Your task to perform on an android device: install app "Walmart Shopping & Grocery" Image 0: 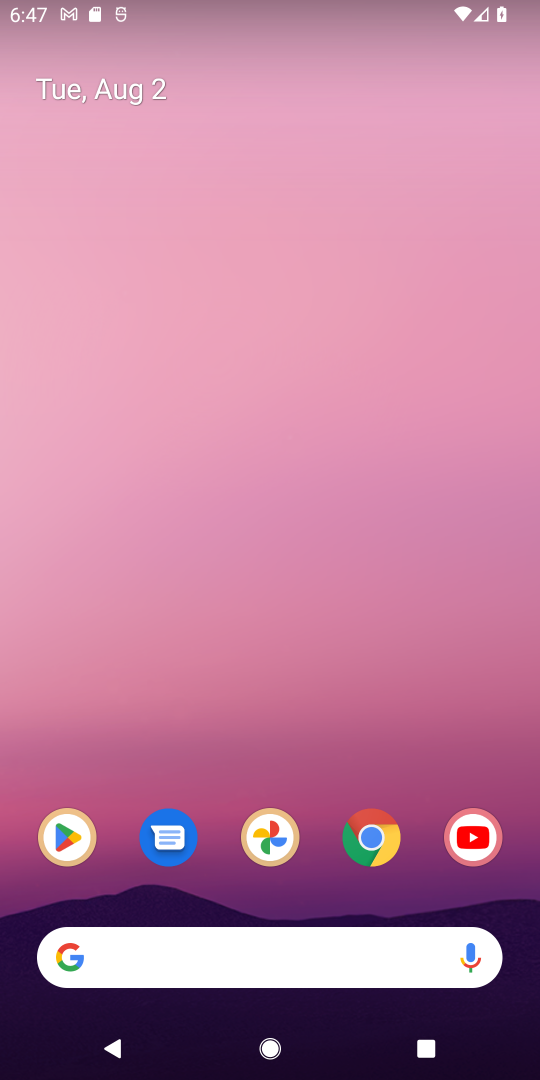
Step 0: drag from (207, 859) to (269, 365)
Your task to perform on an android device: install app "Walmart Shopping & Grocery" Image 1: 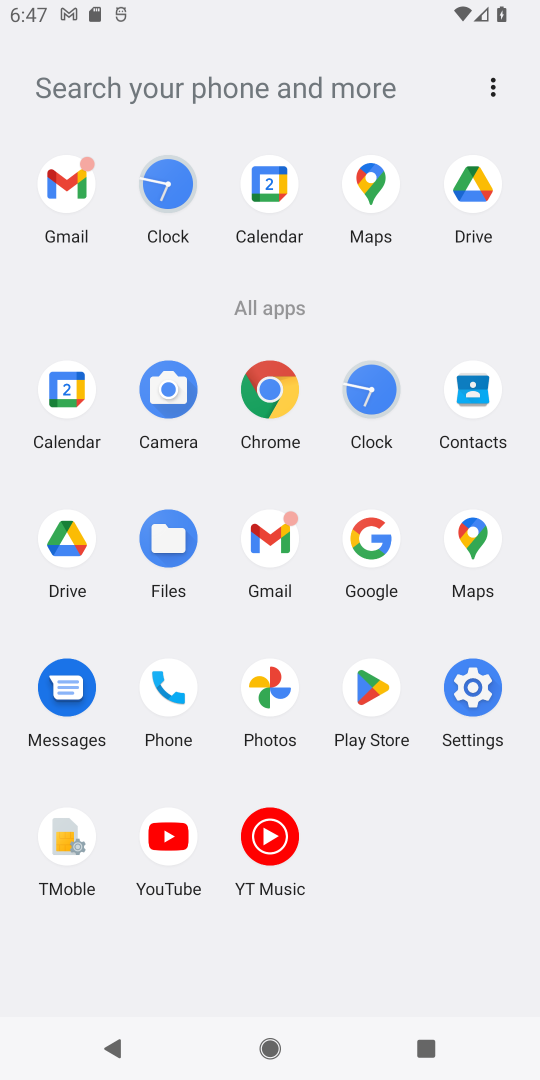
Step 1: click (374, 683)
Your task to perform on an android device: install app "Walmart Shopping & Grocery" Image 2: 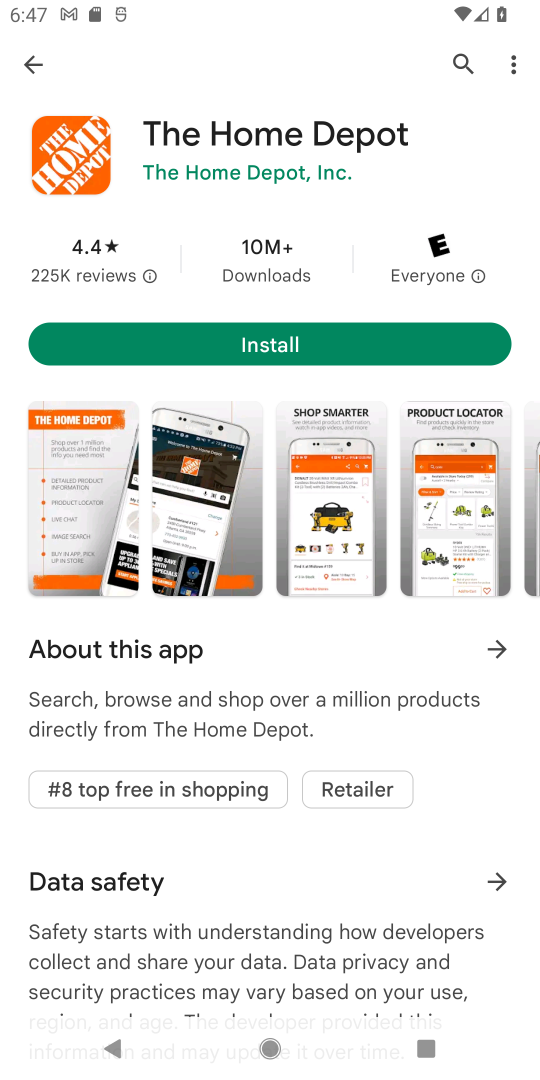
Step 2: drag from (281, 649) to (356, 1072)
Your task to perform on an android device: install app "Walmart Shopping & Grocery" Image 3: 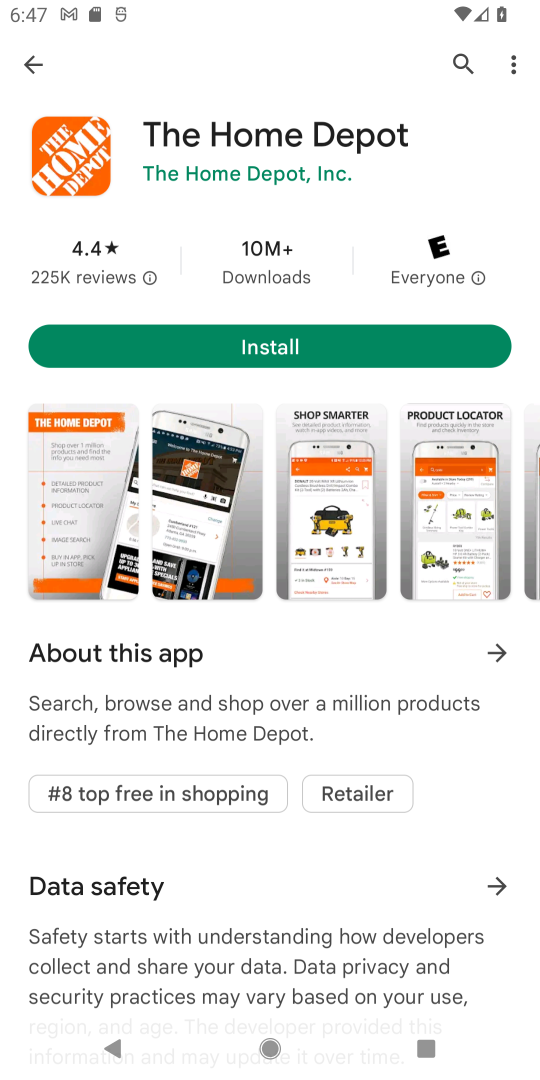
Step 3: drag from (287, 903) to (391, 314)
Your task to perform on an android device: install app "Walmart Shopping & Grocery" Image 4: 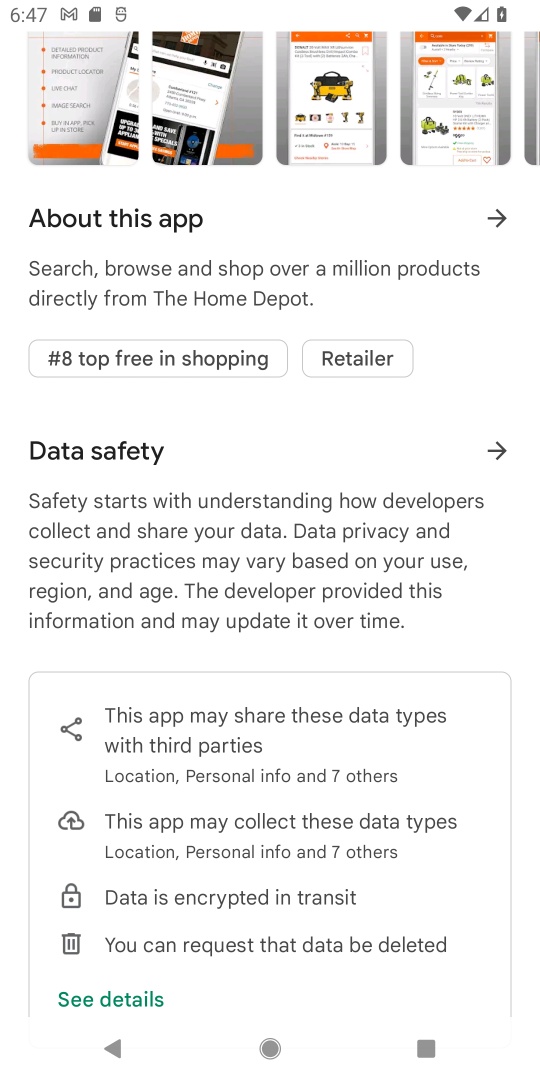
Step 4: drag from (310, 719) to (358, 324)
Your task to perform on an android device: install app "Walmart Shopping & Grocery" Image 5: 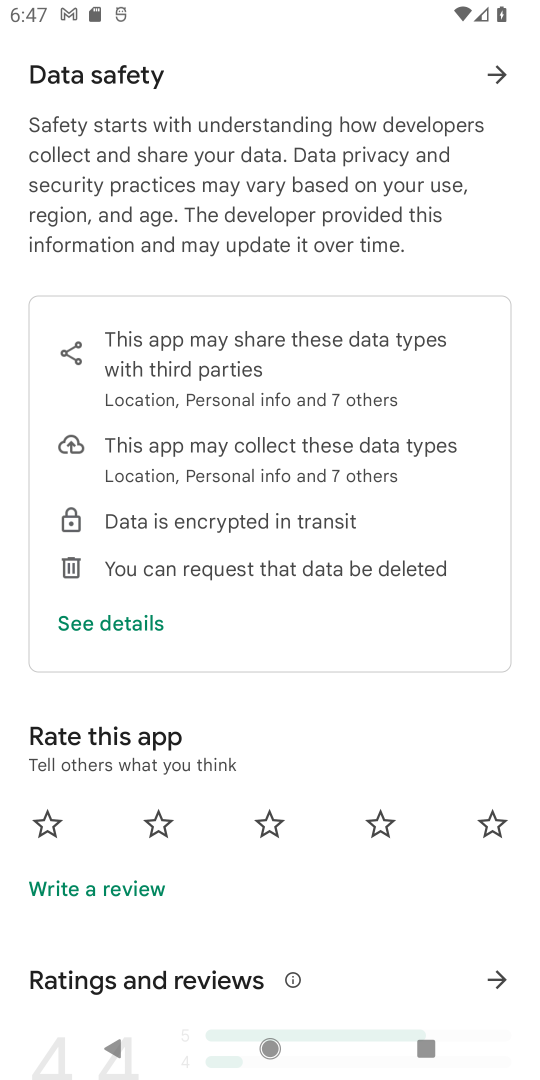
Step 5: drag from (178, 264) to (154, 800)
Your task to perform on an android device: install app "Walmart Shopping & Grocery" Image 6: 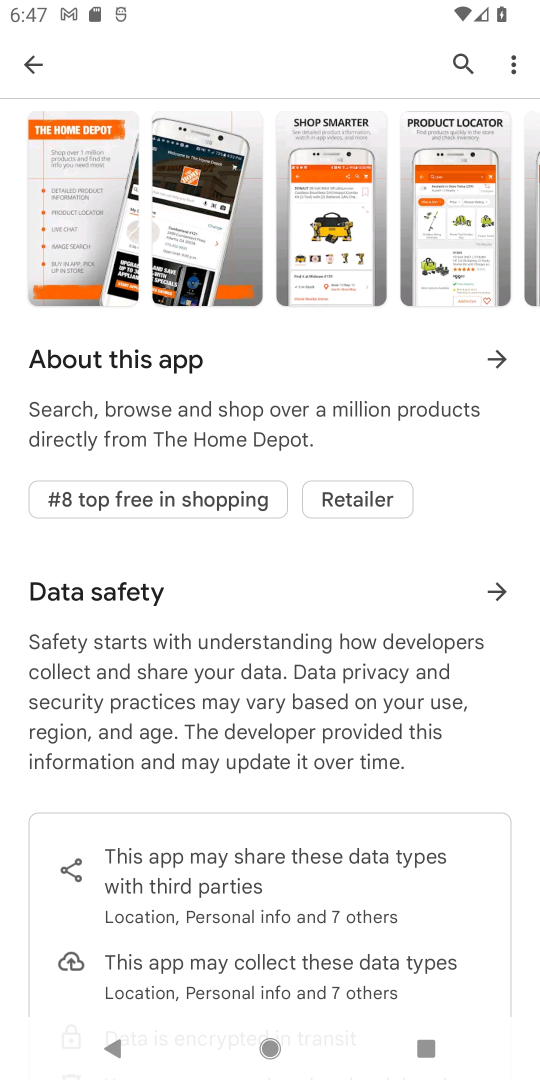
Step 6: drag from (221, 380) to (303, 613)
Your task to perform on an android device: install app "Walmart Shopping & Grocery" Image 7: 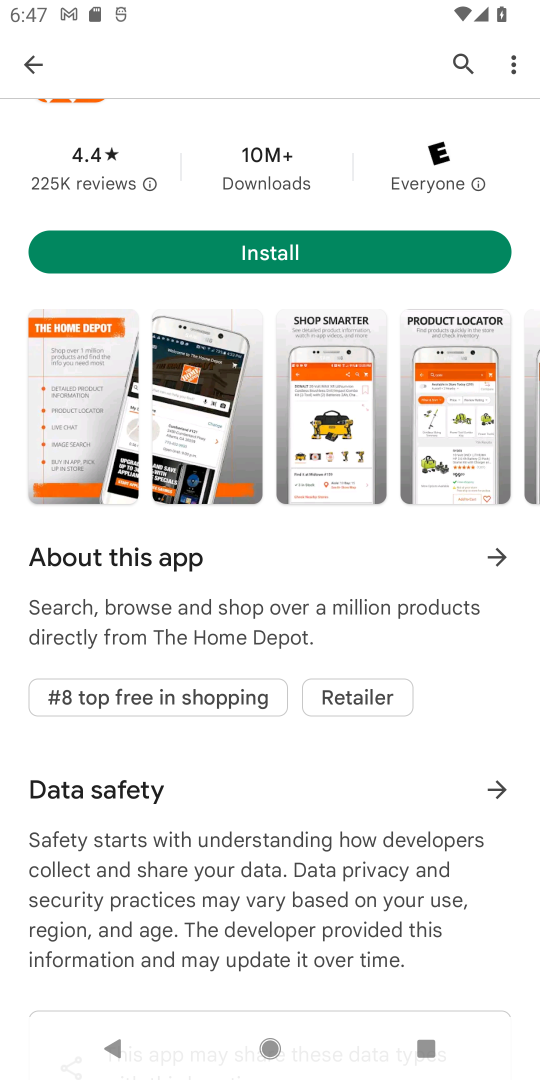
Step 7: drag from (253, 611) to (427, 1073)
Your task to perform on an android device: install app "Walmart Shopping & Grocery" Image 8: 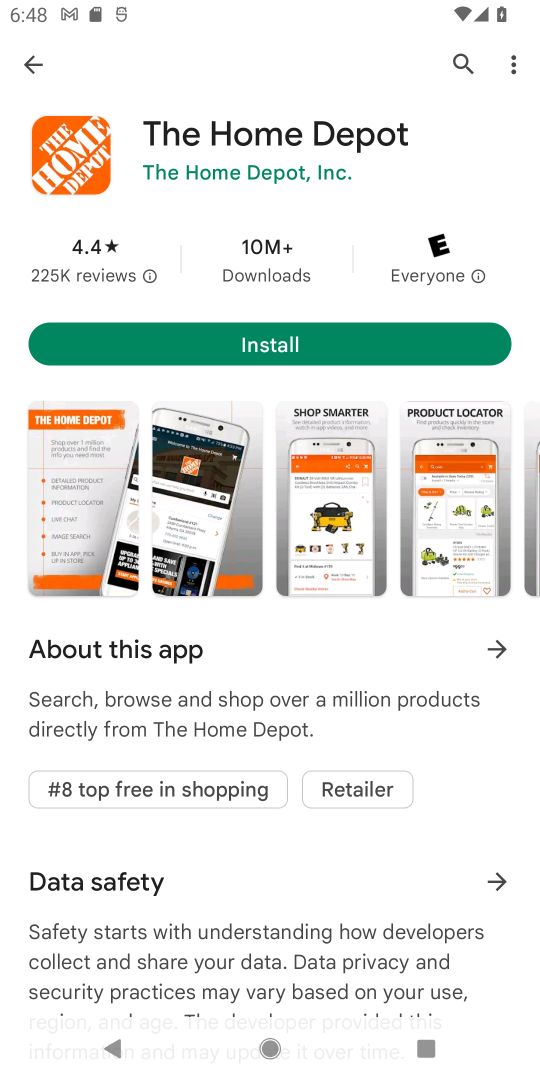
Step 8: drag from (273, 698) to (317, 495)
Your task to perform on an android device: install app "Walmart Shopping & Grocery" Image 9: 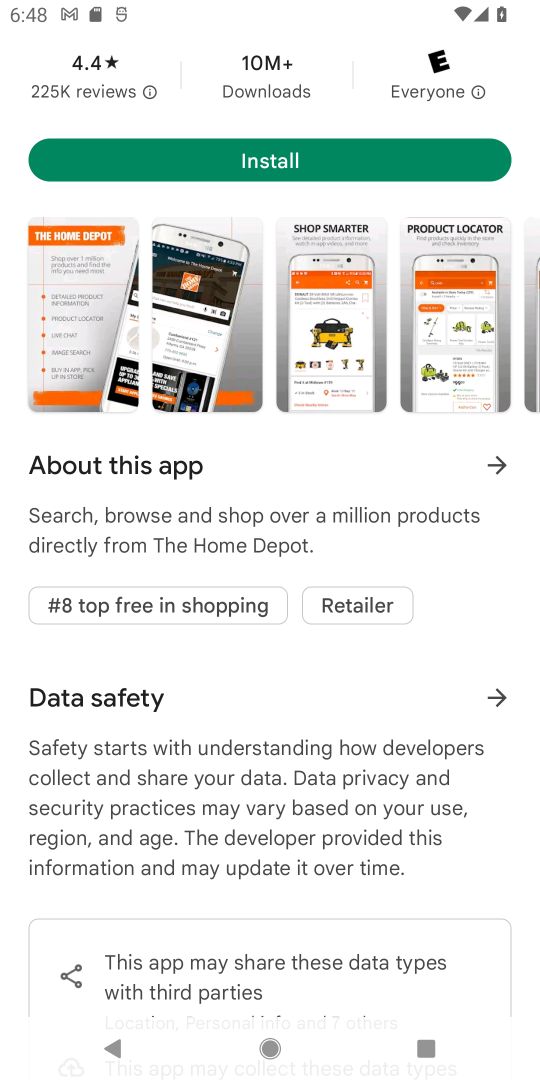
Step 9: drag from (295, 539) to (284, 732)
Your task to perform on an android device: install app "Walmart Shopping & Grocery" Image 10: 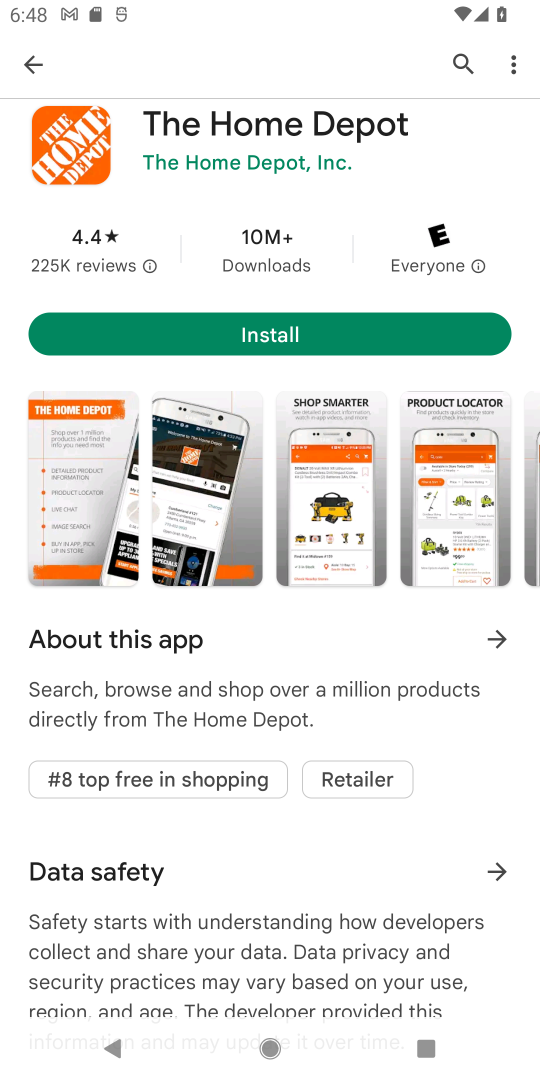
Step 10: drag from (314, 726) to (371, 506)
Your task to perform on an android device: install app "Walmart Shopping & Grocery" Image 11: 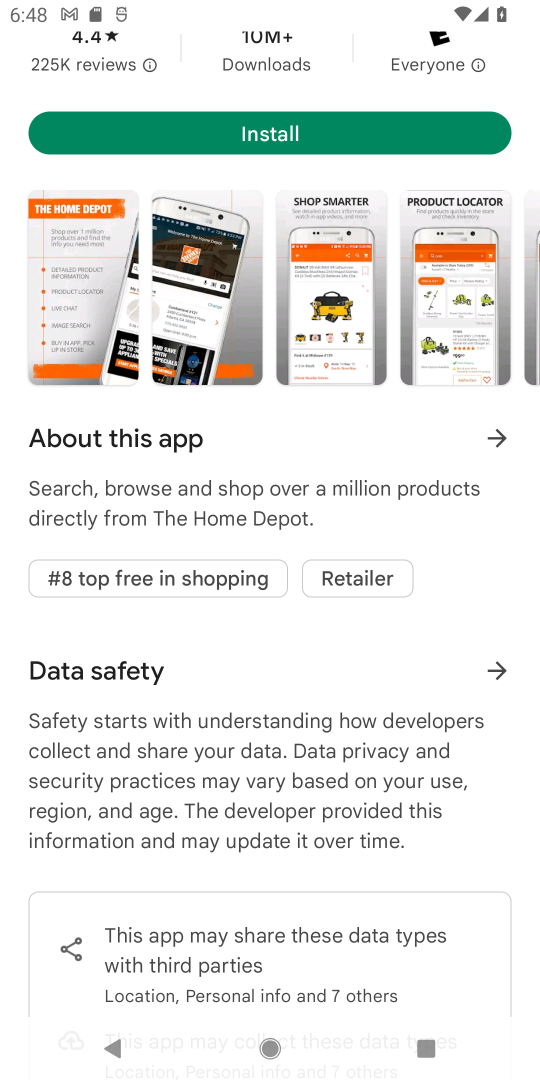
Step 11: drag from (249, 704) to (249, 525)
Your task to perform on an android device: install app "Walmart Shopping & Grocery" Image 12: 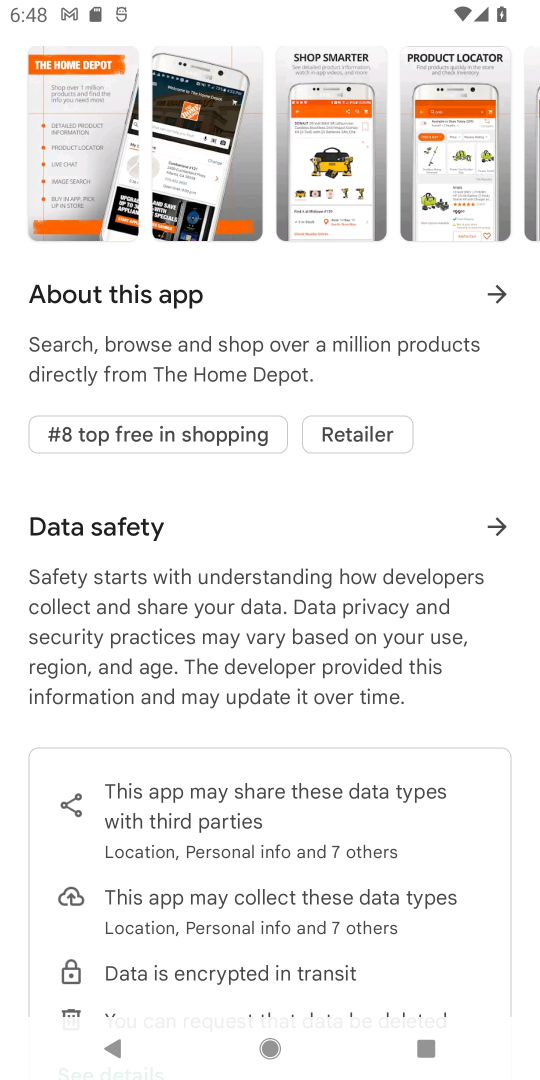
Step 12: drag from (280, 349) to (536, 1058)
Your task to perform on an android device: install app "Walmart Shopping & Grocery" Image 13: 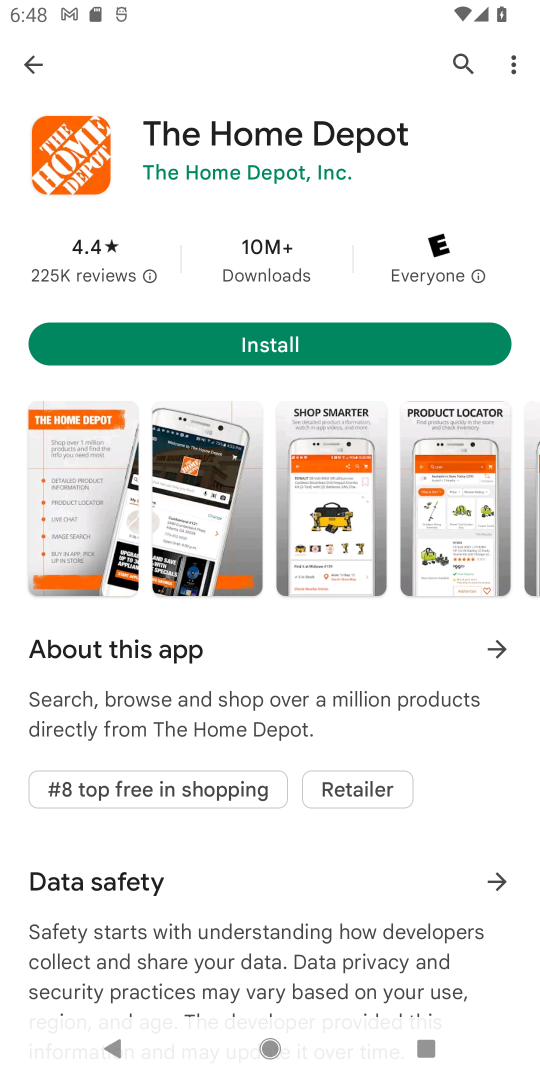
Step 13: click (469, 62)
Your task to perform on an android device: install app "Walmart Shopping & Grocery" Image 14: 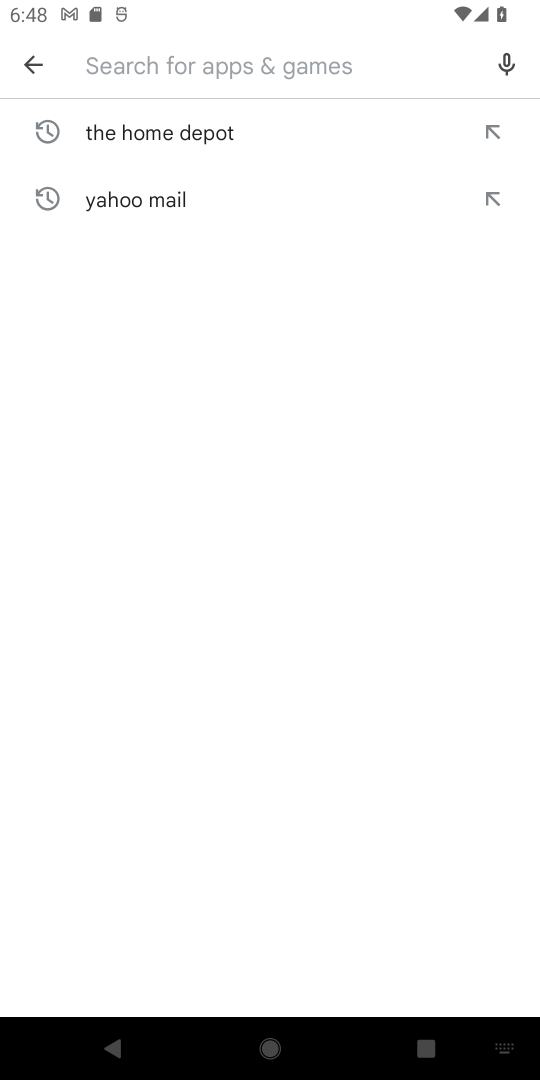
Step 14: click (334, 53)
Your task to perform on an android device: install app "Walmart Shopping & Grocery" Image 15: 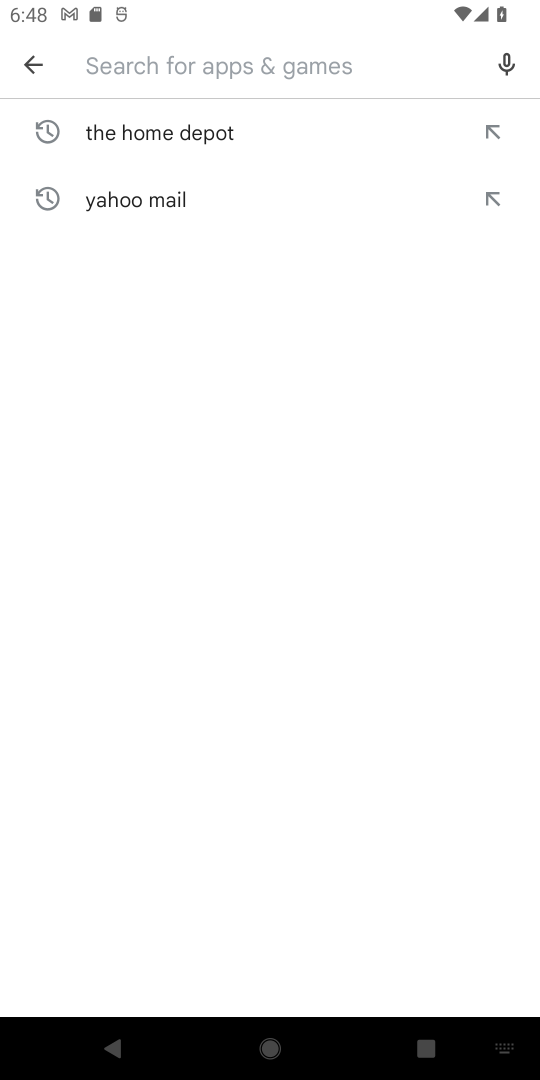
Step 15: type "Walmart Shopping & Grocery"
Your task to perform on an android device: install app "Walmart Shopping & Grocery" Image 16: 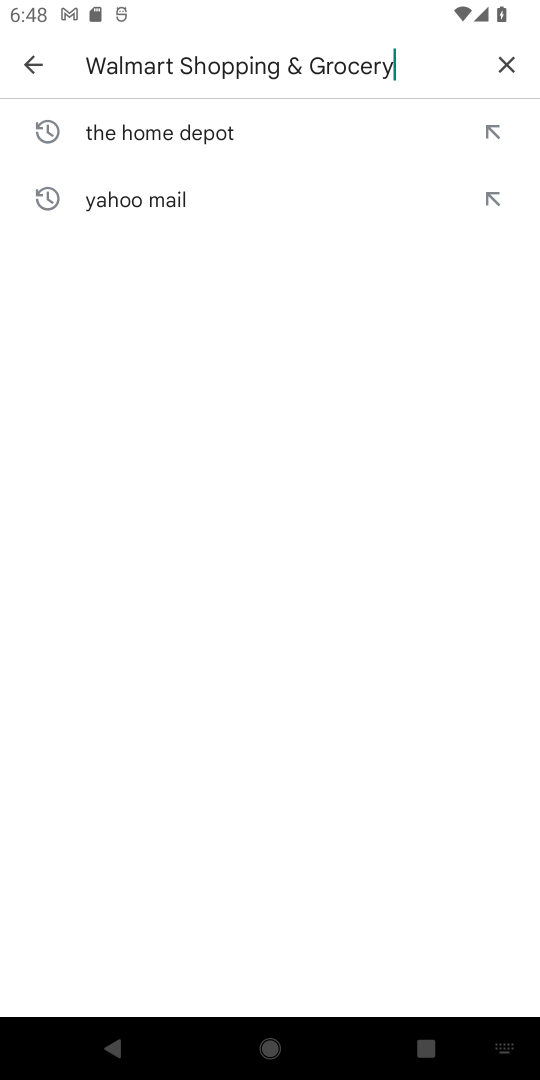
Step 16: type ""
Your task to perform on an android device: install app "Walmart Shopping & Grocery" Image 17: 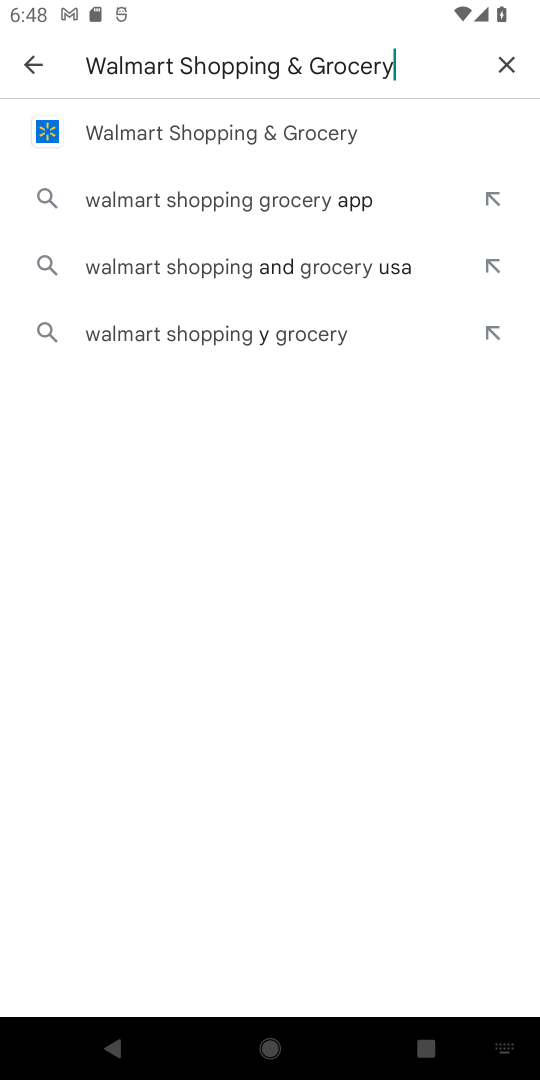
Step 17: click (222, 127)
Your task to perform on an android device: install app "Walmart Shopping & Grocery" Image 18: 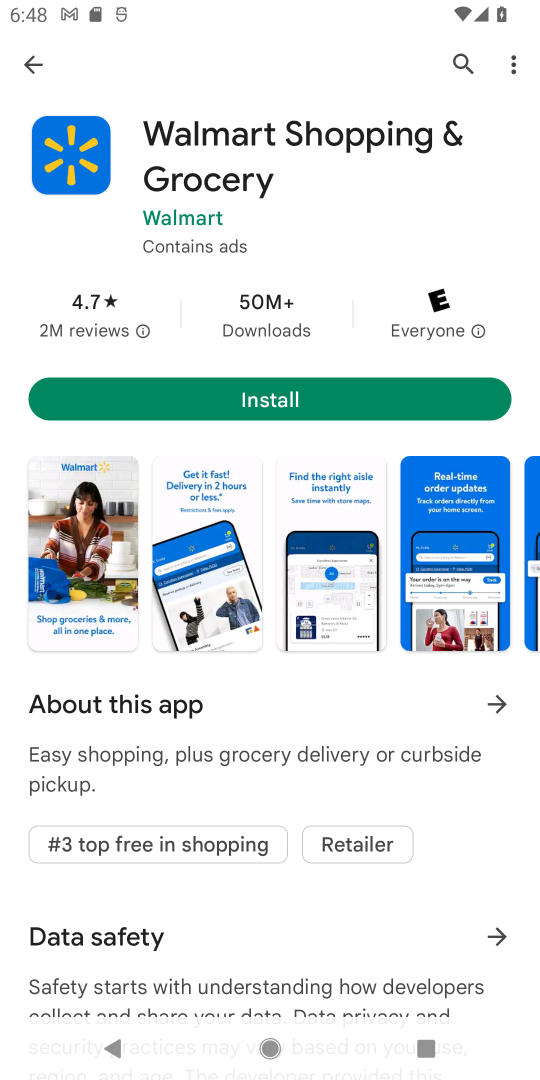
Step 18: drag from (313, 413) to (462, 816)
Your task to perform on an android device: install app "Walmart Shopping & Grocery" Image 19: 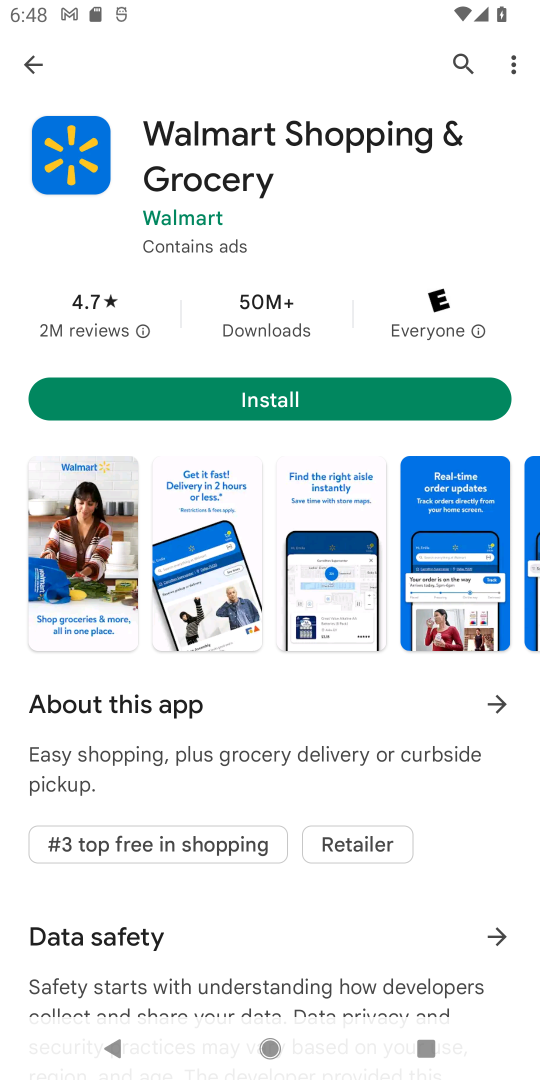
Step 19: drag from (298, 198) to (247, 605)
Your task to perform on an android device: install app "Walmart Shopping & Grocery" Image 20: 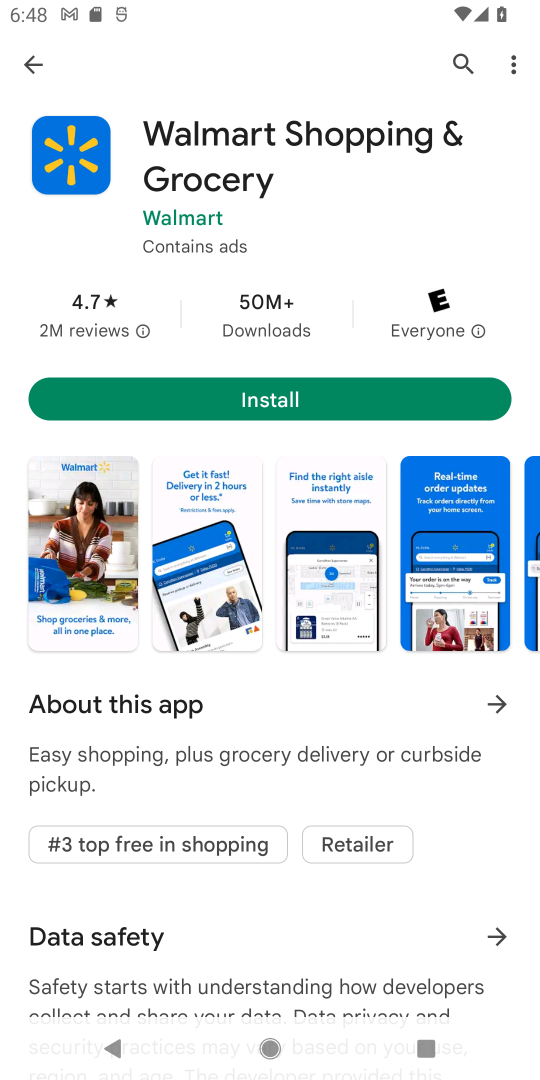
Step 20: drag from (339, 223) to (252, 961)
Your task to perform on an android device: install app "Walmart Shopping & Grocery" Image 21: 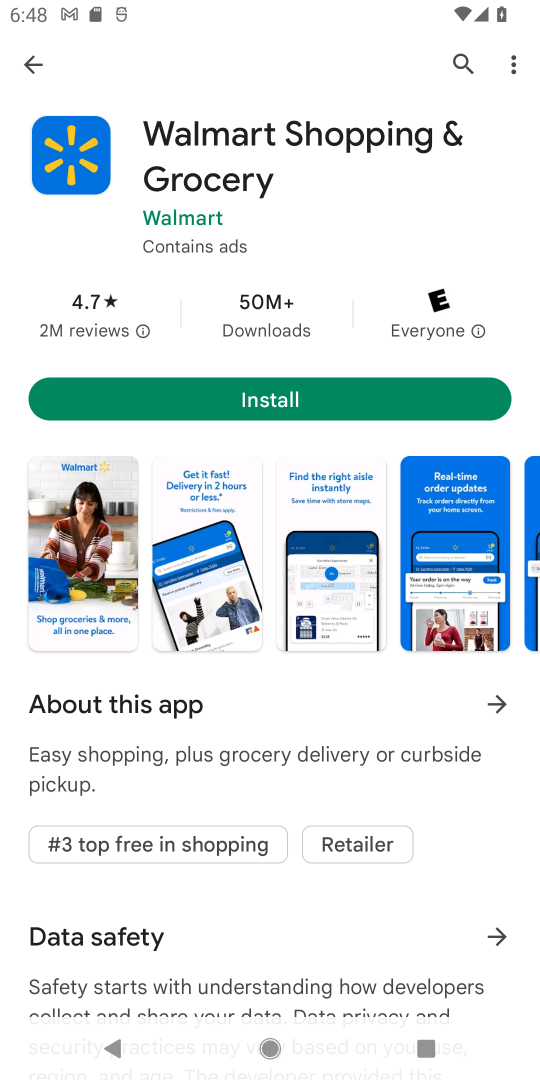
Step 21: drag from (300, 774) to (385, 1075)
Your task to perform on an android device: install app "Walmart Shopping & Grocery" Image 22: 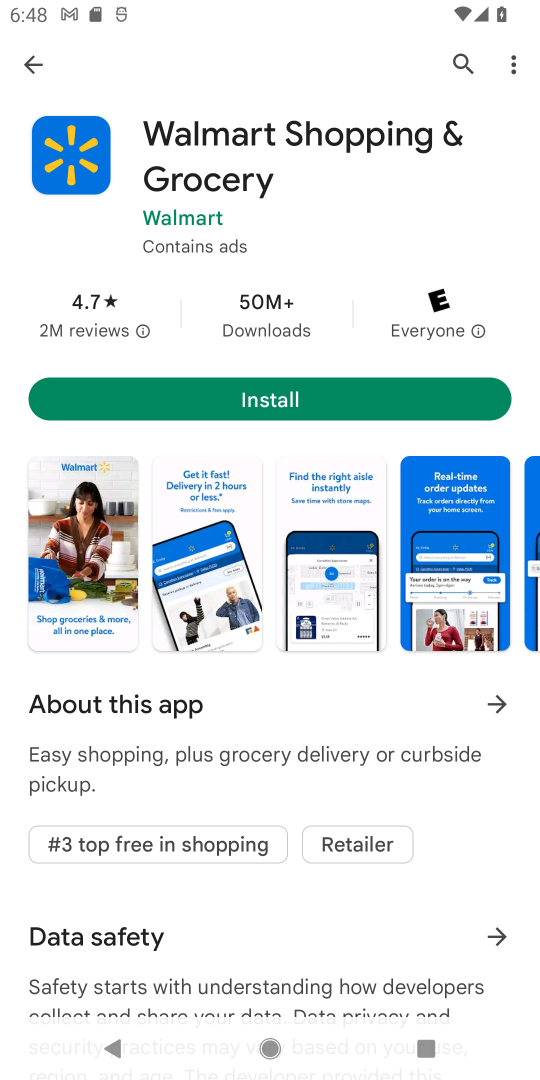
Step 22: drag from (294, 281) to (244, 888)
Your task to perform on an android device: install app "Walmart Shopping & Grocery" Image 23: 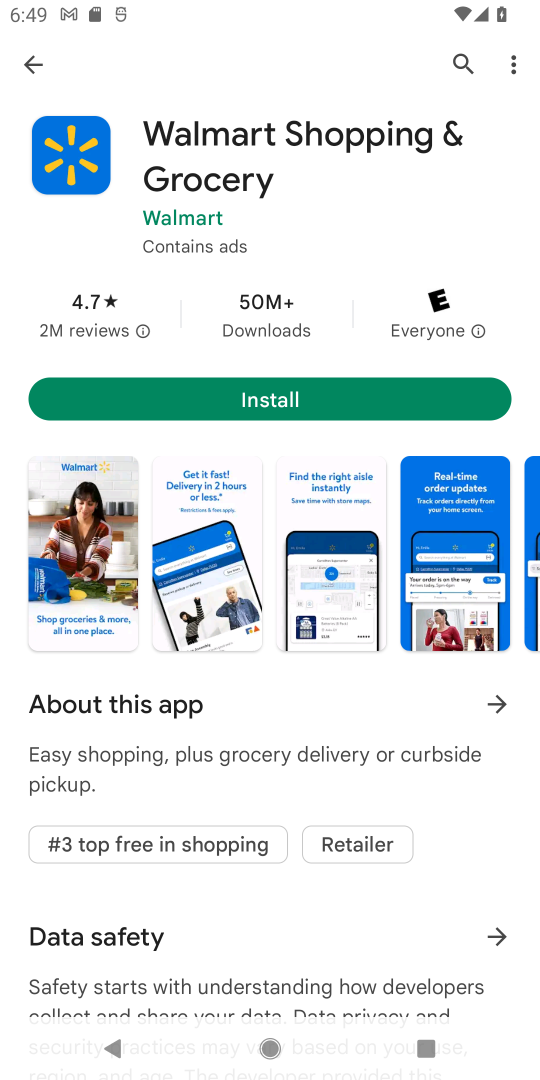
Step 23: drag from (293, 197) to (295, 863)
Your task to perform on an android device: install app "Walmart Shopping & Grocery" Image 24: 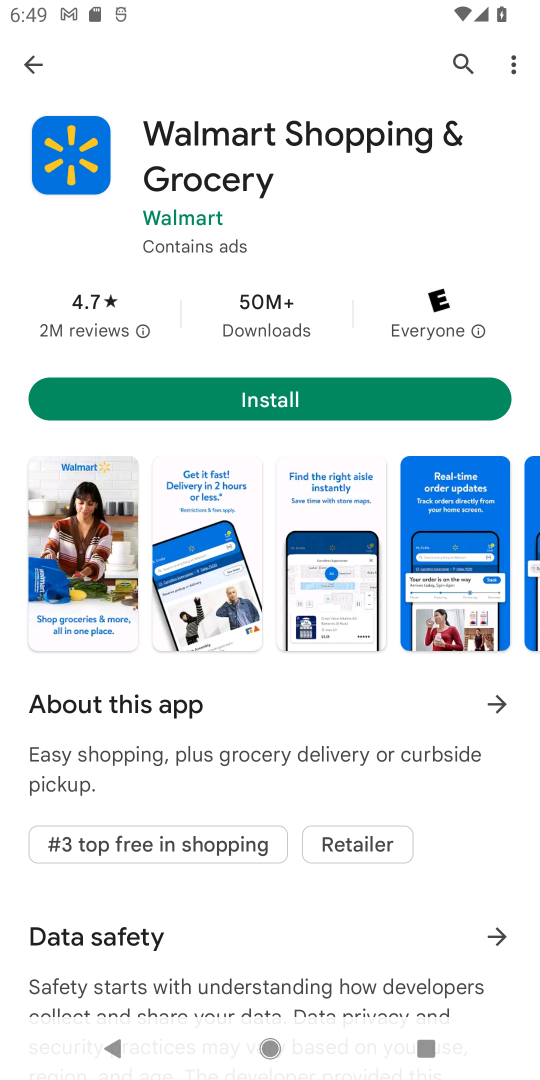
Step 24: drag from (325, 271) to (309, 932)
Your task to perform on an android device: install app "Walmart Shopping & Grocery" Image 25: 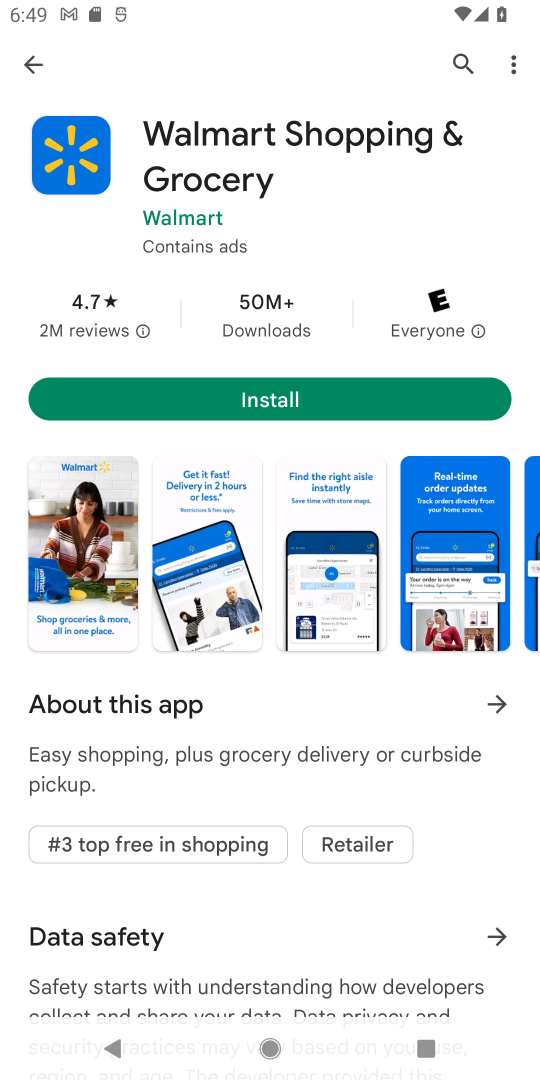
Step 25: drag from (305, 268) to (290, 815)
Your task to perform on an android device: install app "Walmart Shopping & Grocery" Image 26: 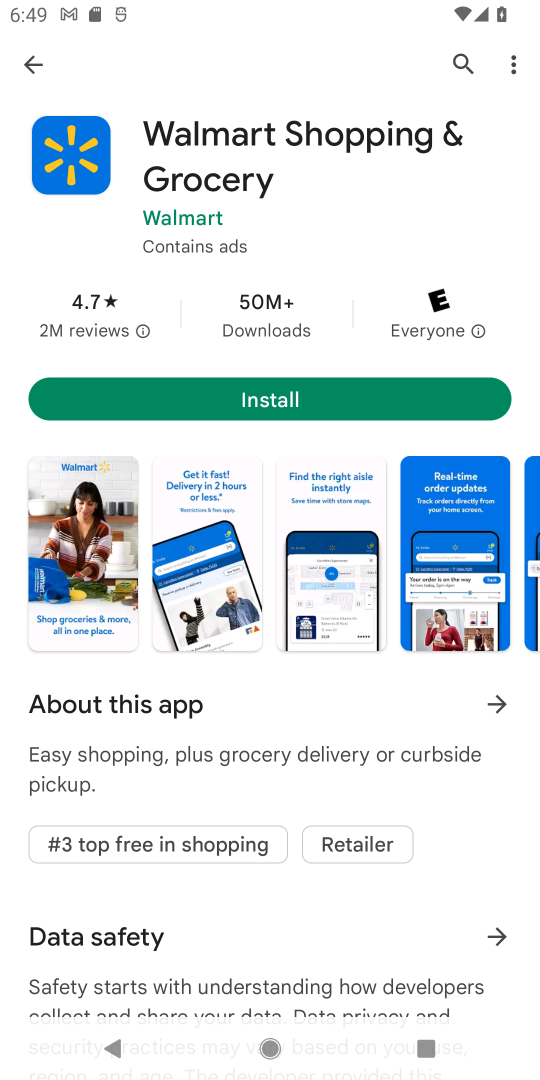
Step 26: drag from (356, 220) to (385, 862)
Your task to perform on an android device: install app "Walmart Shopping & Grocery" Image 27: 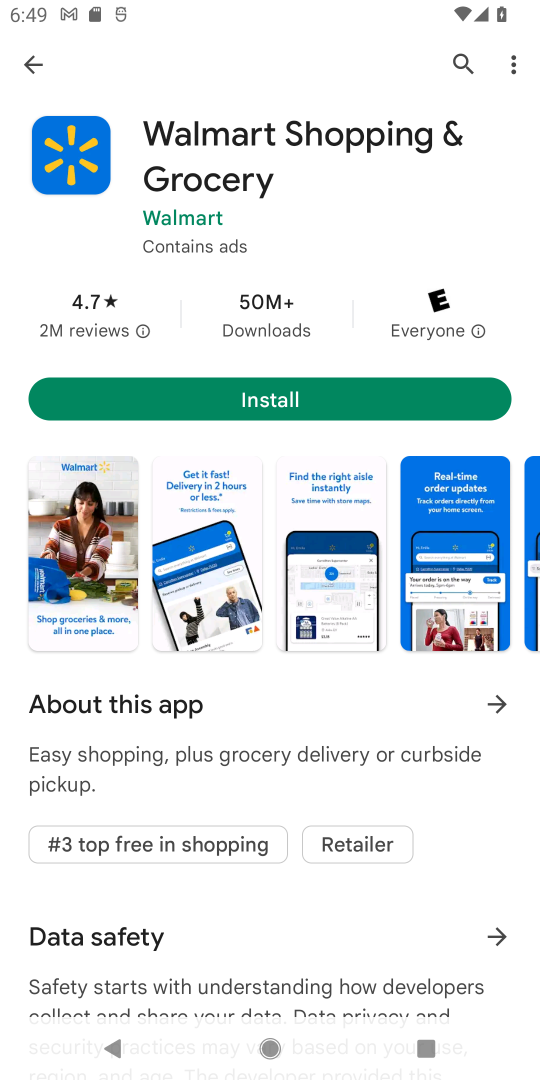
Step 27: drag from (335, 181) to (301, 1005)
Your task to perform on an android device: install app "Walmart Shopping & Grocery" Image 28: 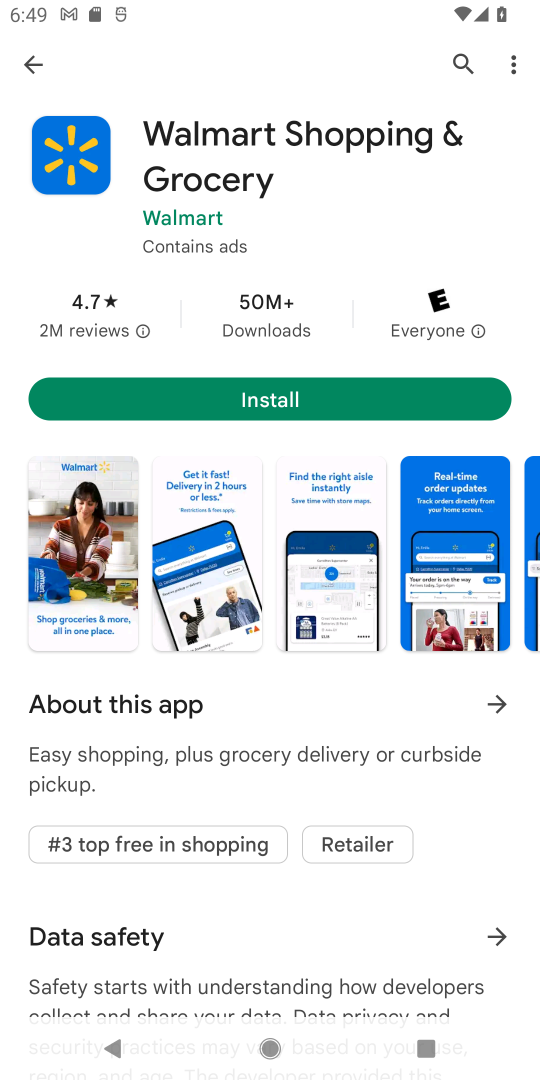
Step 28: drag from (384, 208) to (494, 1071)
Your task to perform on an android device: install app "Walmart Shopping & Grocery" Image 29: 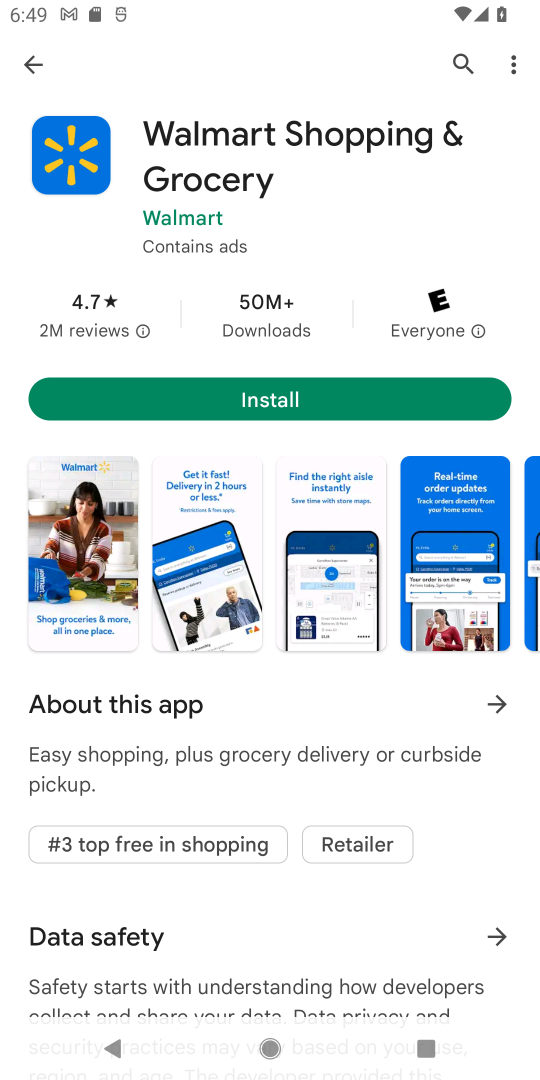
Step 29: click (439, 55)
Your task to perform on an android device: install app "Walmart Shopping & Grocery" Image 30: 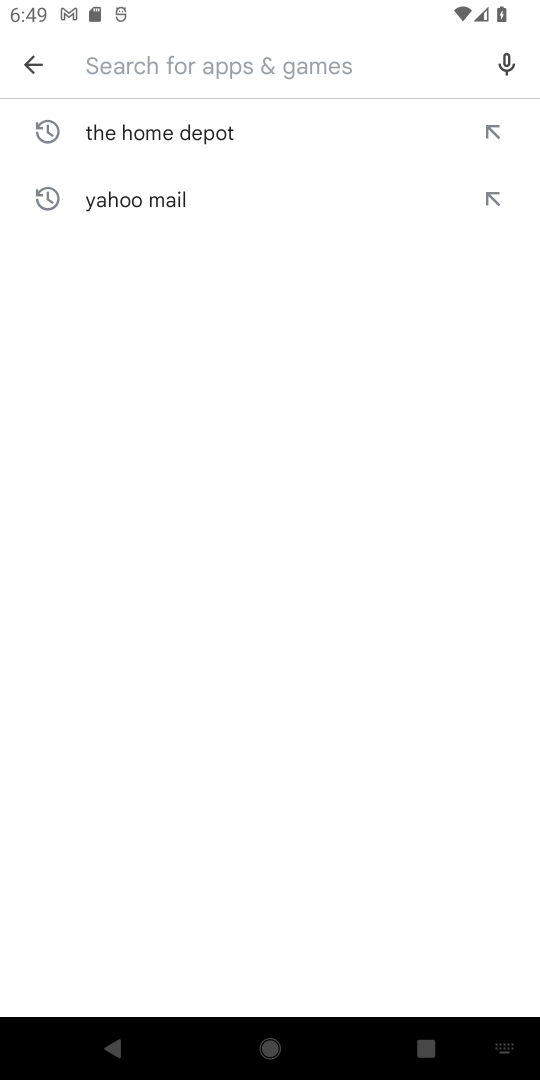
Step 30: type "Walmart Shopping & Grocery"
Your task to perform on an android device: install app "Walmart Shopping & Grocery" Image 31: 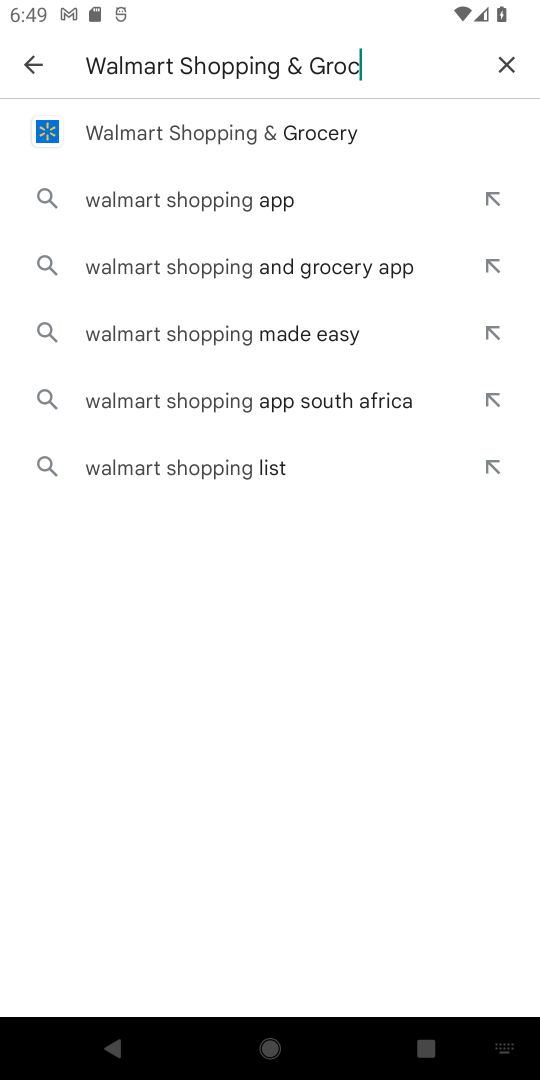
Step 31: type ""
Your task to perform on an android device: install app "Walmart Shopping & Grocery" Image 32: 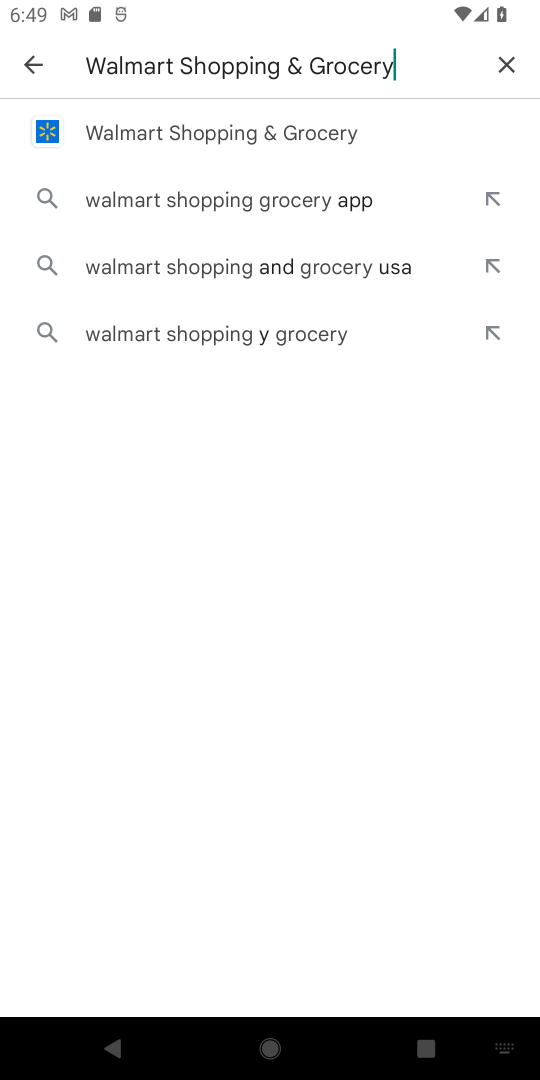
Step 32: click (210, 116)
Your task to perform on an android device: install app "Walmart Shopping & Grocery" Image 33: 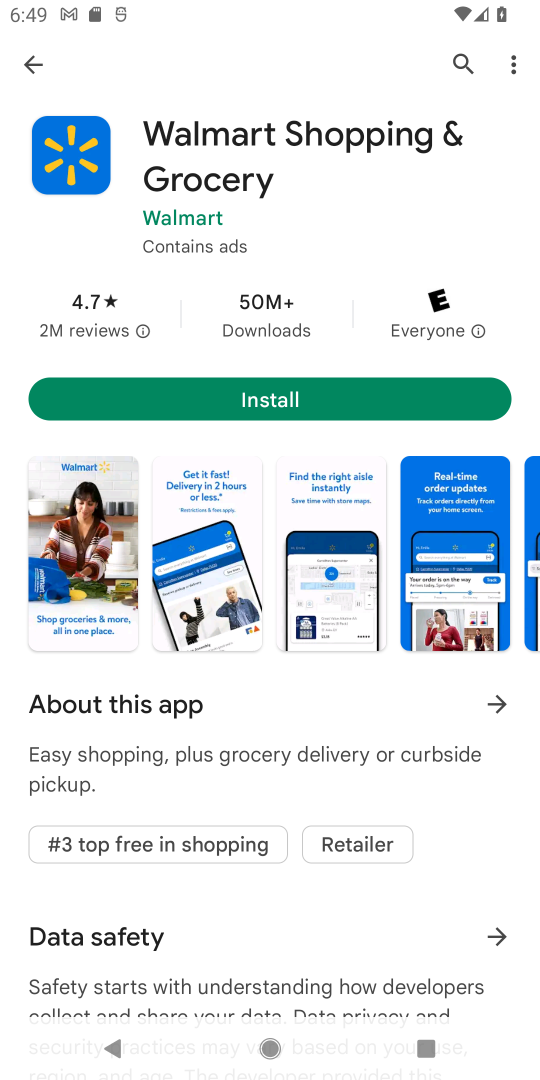
Step 33: drag from (293, 177) to (341, 896)
Your task to perform on an android device: install app "Walmart Shopping & Grocery" Image 34: 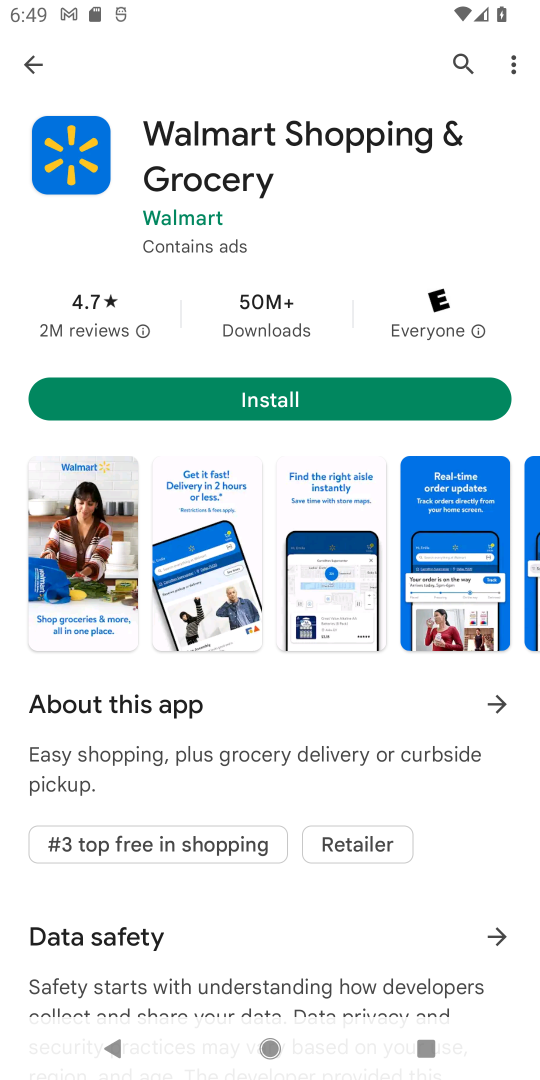
Step 34: drag from (308, 163) to (287, 454)
Your task to perform on an android device: install app "Walmart Shopping & Grocery" Image 35: 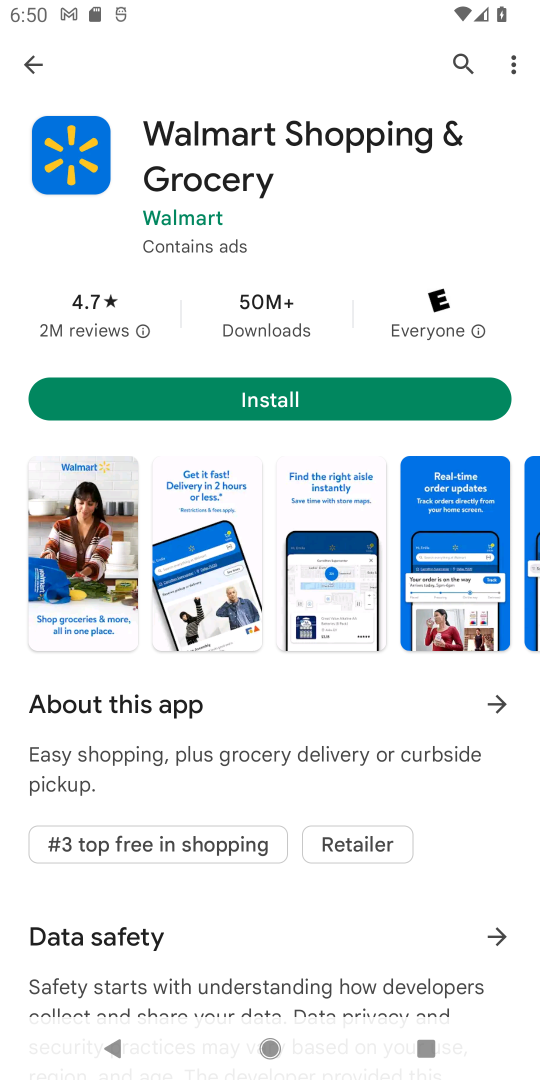
Step 35: click (240, 407)
Your task to perform on an android device: install app "Walmart Shopping & Grocery" Image 36: 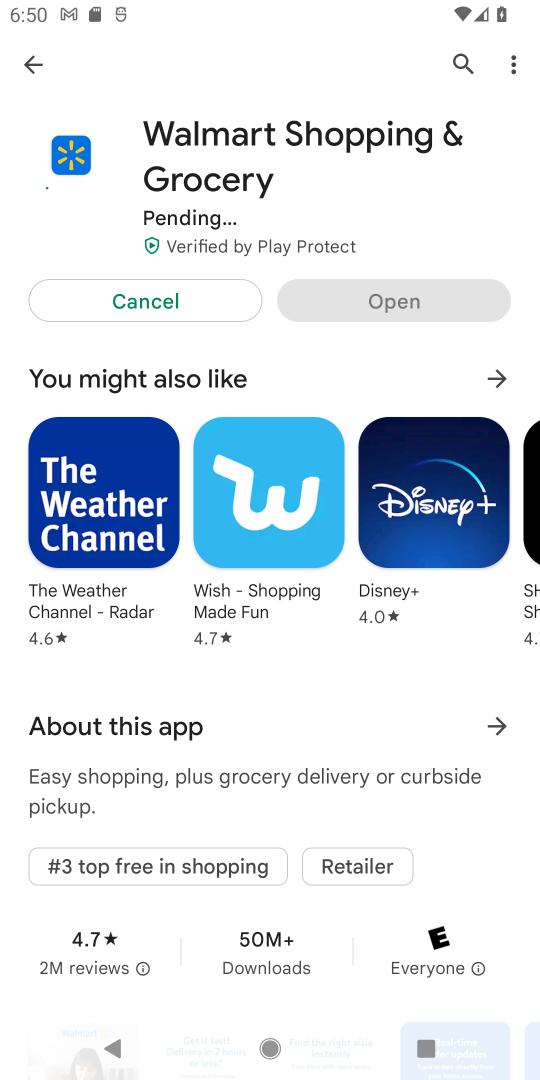
Step 36: task complete